Your task to perform on an android device: Show me popular videos on Youtube Image 0: 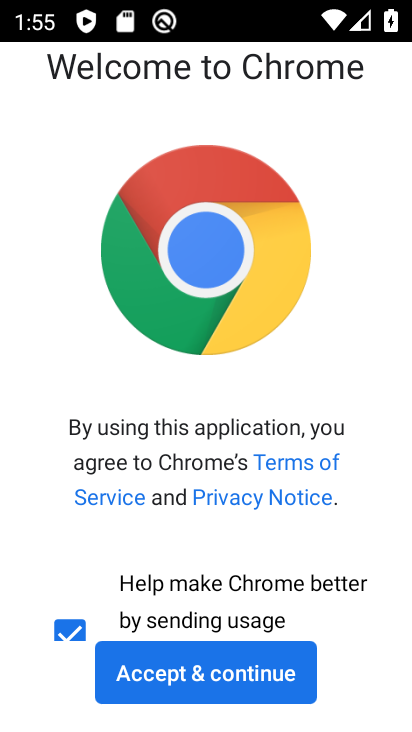
Step 0: press home button
Your task to perform on an android device: Show me popular videos on Youtube Image 1: 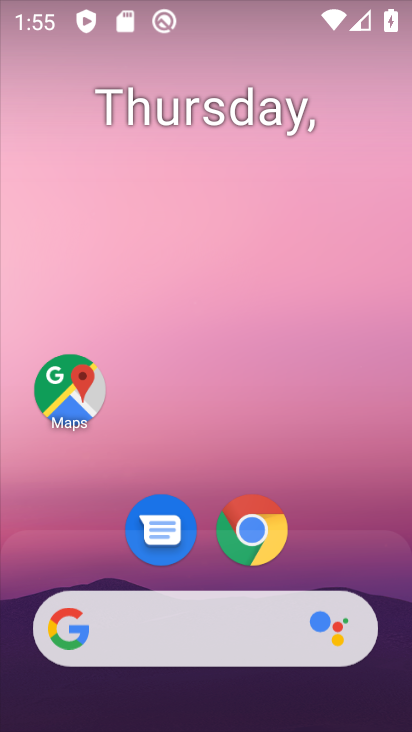
Step 1: drag from (114, 487) to (191, 207)
Your task to perform on an android device: Show me popular videos on Youtube Image 2: 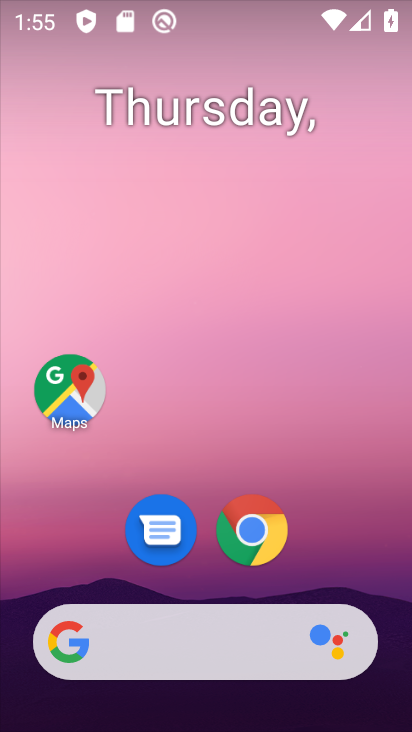
Step 2: drag from (63, 600) to (192, 173)
Your task to perform on an android device: Show me popular videos on Youtube Image 3: 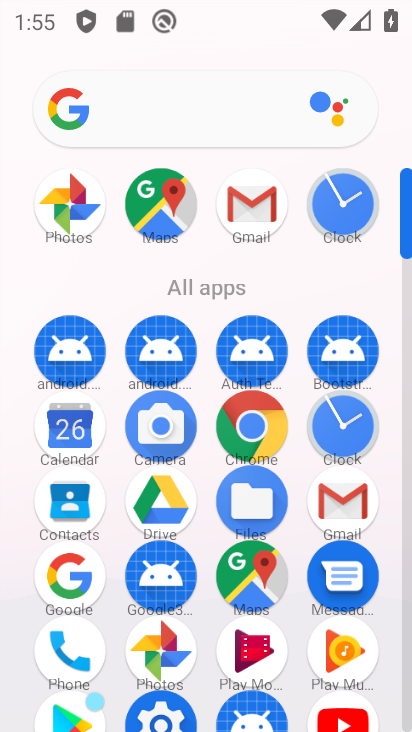
Step 3: drag from (175, 660) to (251, 417)
Your task to perform on an android device: Show me popular videos on Youtube Image 4: 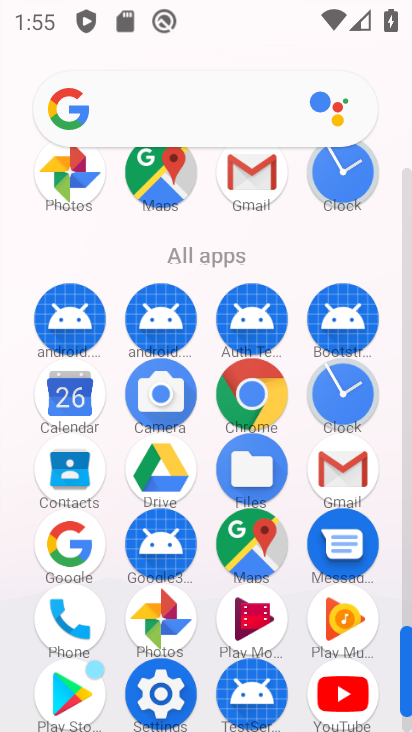
Step 4: click (345, 704)
Your task to perform on an android device: Show me popular videos on Youtube Image 5: 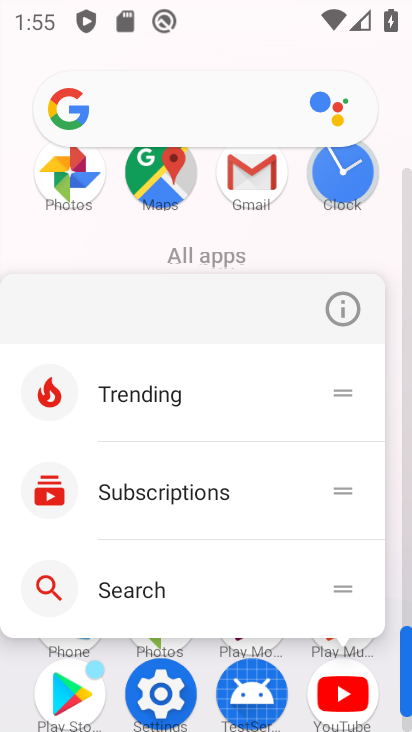
Step 5: click (345, 704)
Your task to perform on an android device: Show me popular videos on Youtube Image 6: 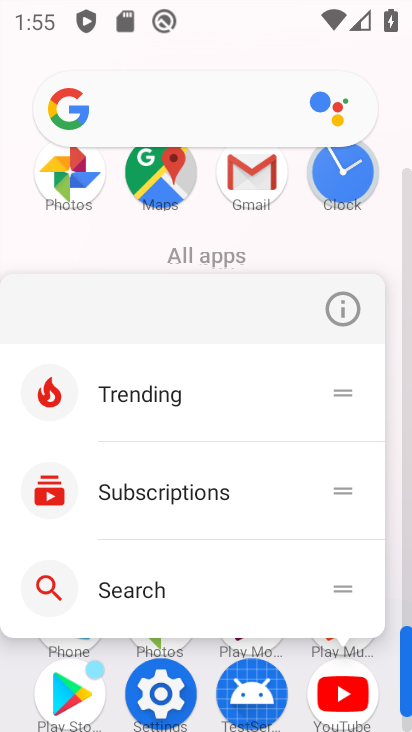
Step 6: click (359, 693)
Your task to perform on an android device: Show me popular videos on Youtube Image 7: 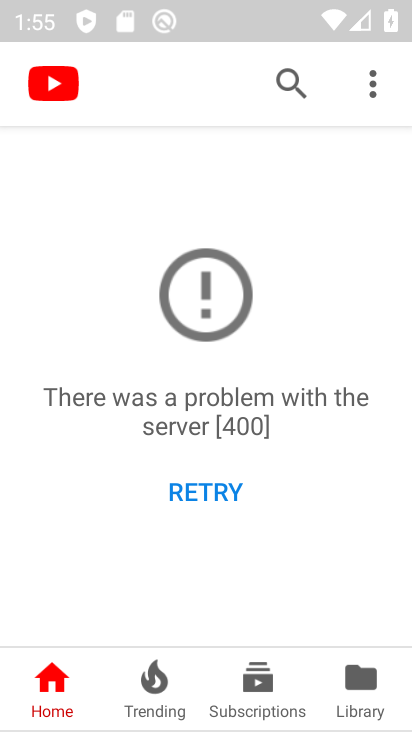
Step 7: click (356, 691)
Your task to perform on an android device: Show me popular videos on Youtube Image 8: 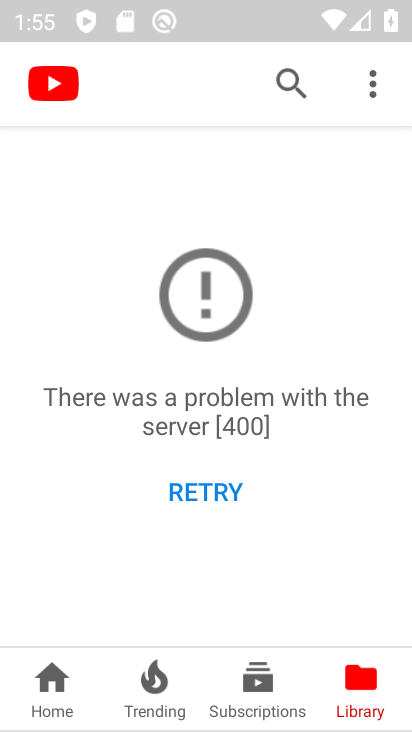
Step 8: click (356, 691)
Your task to perform on an android device: Show me popular videos on Youtube Image 9: 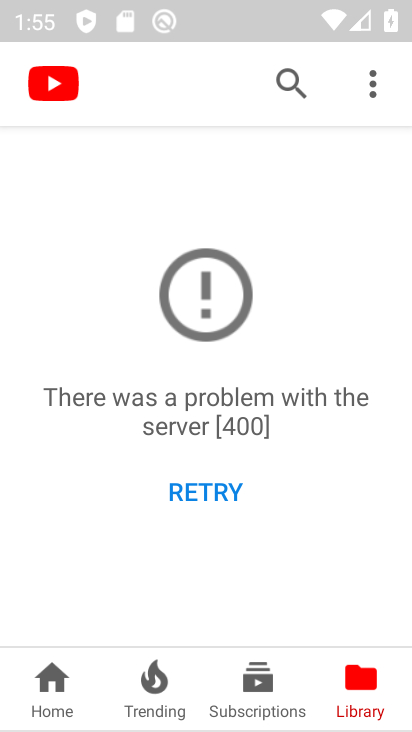
Step 9: task complete